Your task to perform on an android device: Go to CNN.com Image 0: 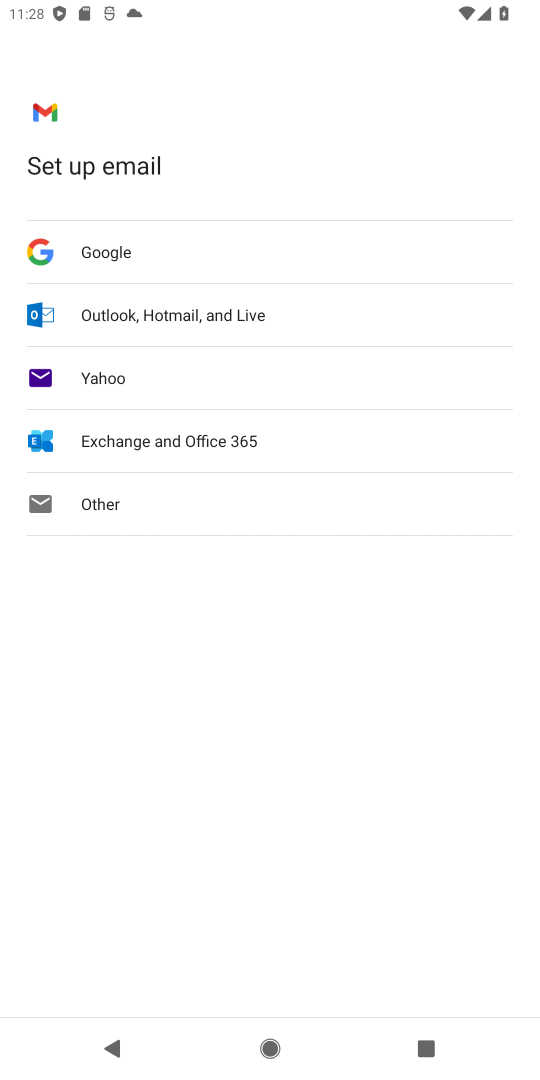
Step 0: press home button
Your task to perform on an android device: Go to CNN.com Image 1: 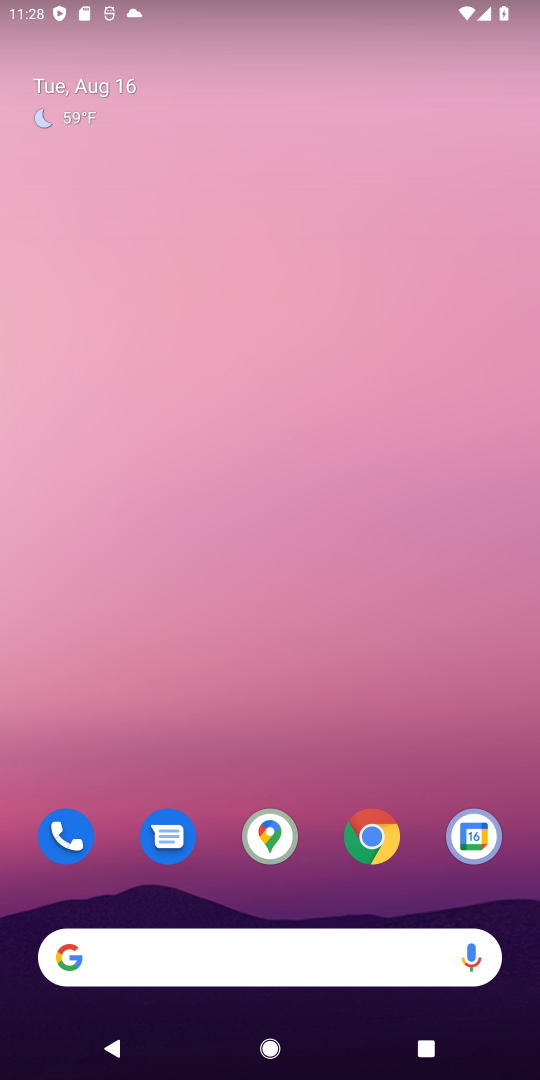
Step 1: click (370, 841)
Your task to perform on an android device: Go to CNN.com Image 2: 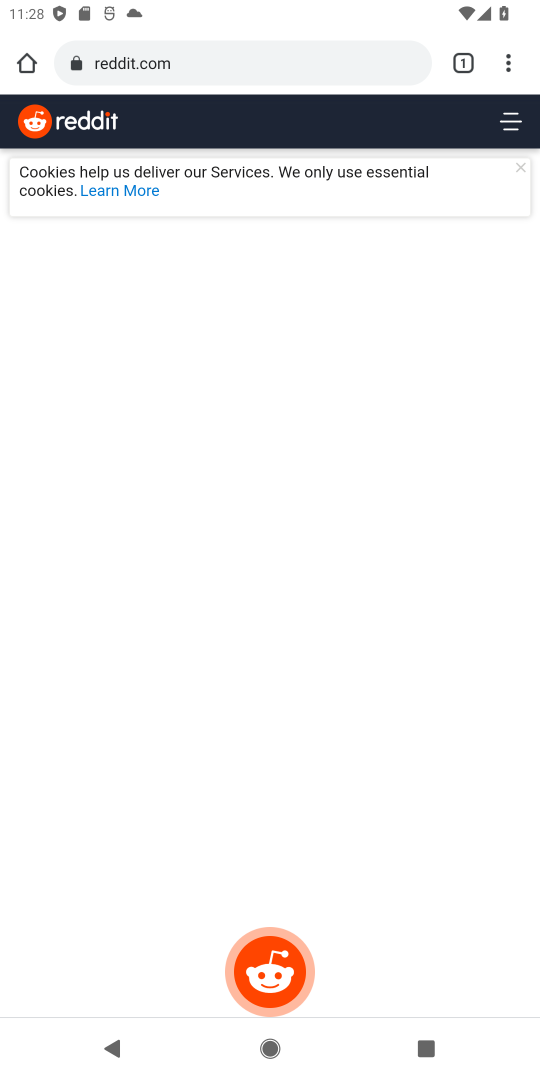
Step 2: click (275, 67)
Your task to perform on an android device: Go to CNN.com Image 3: 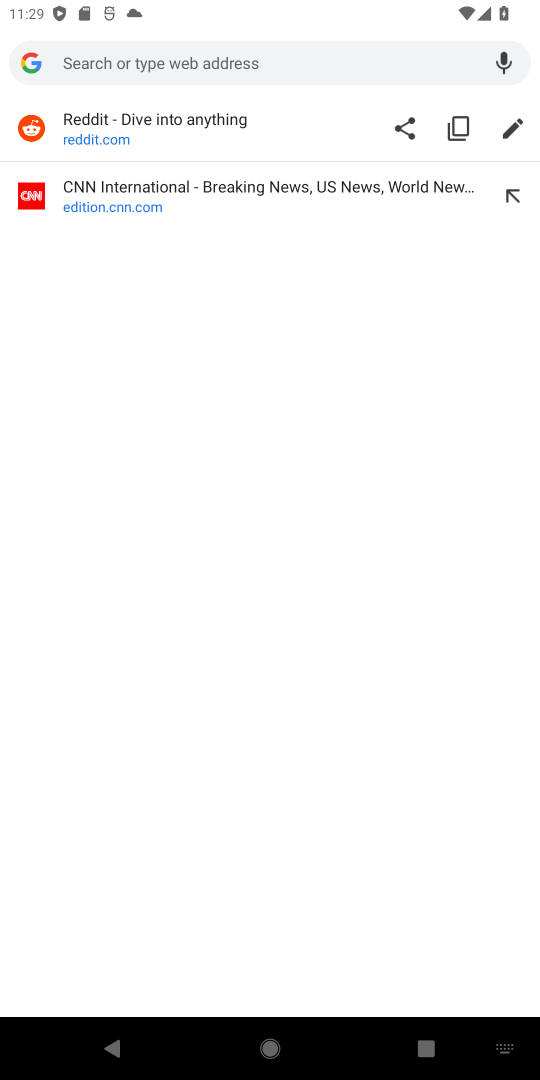
Step 3: type "CNN.com"
Your task to perform on an android device: Go to CNN.com Image 4: 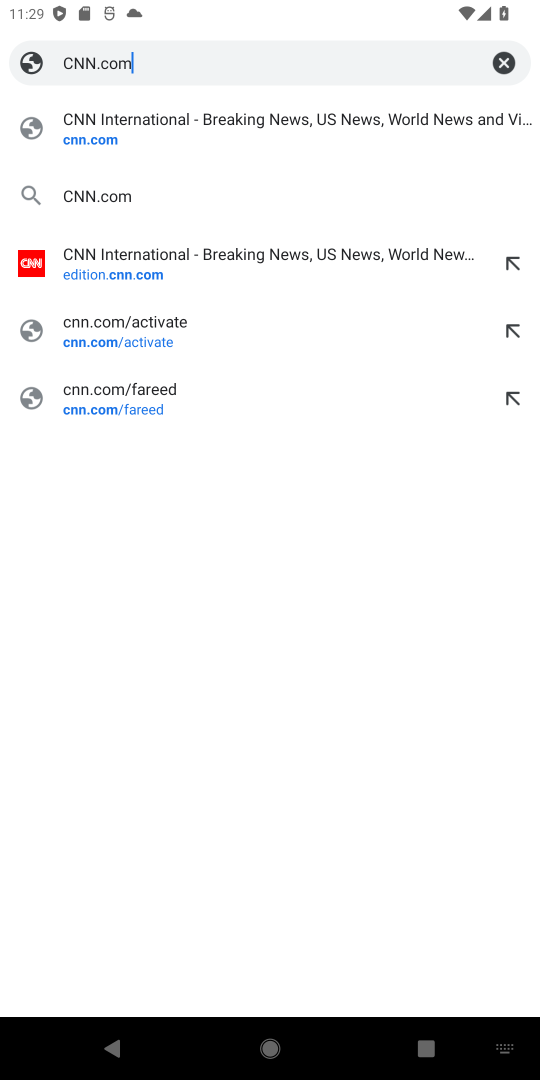
Step 4: click (112, 192)
Your task to perform on an android device: Go to CNN.com Image 5: 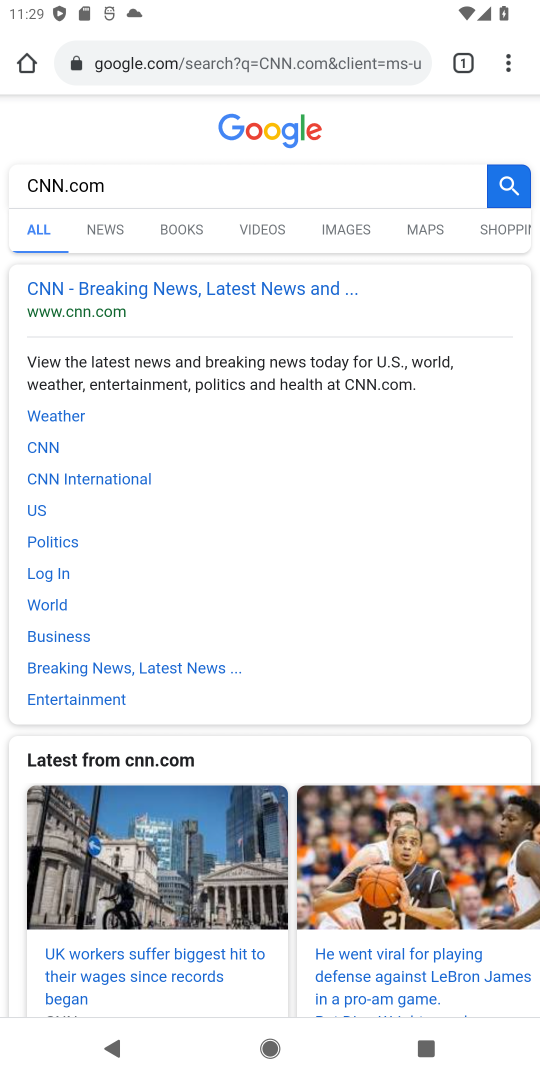
Step 5: click (133, 285)
Your task to perform on an android device: Go to CNN.com Image 6: 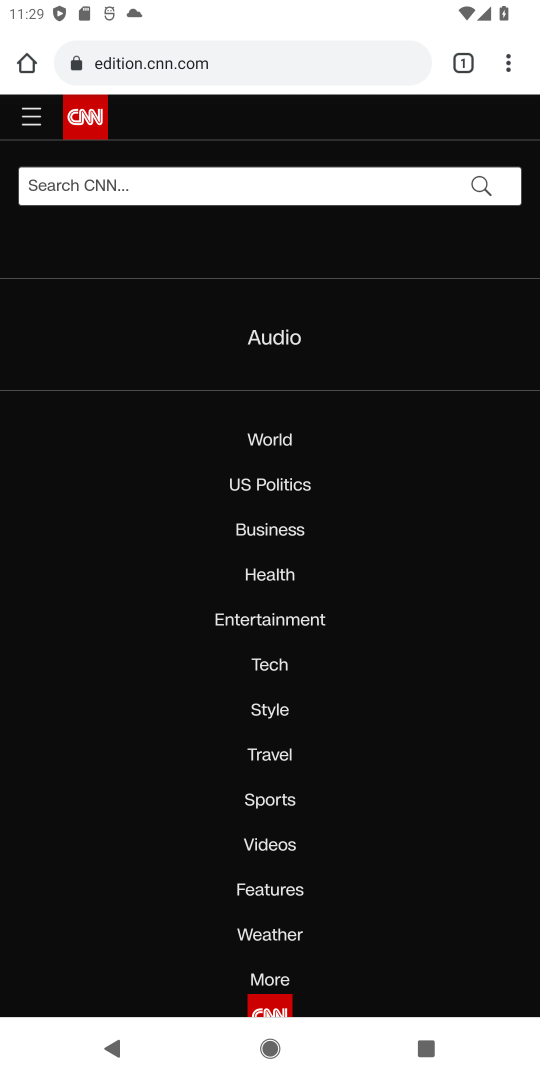
Step 6: task complete